Your task to perform on an android device: see tabs open on other devices in the chrome app Image 0: 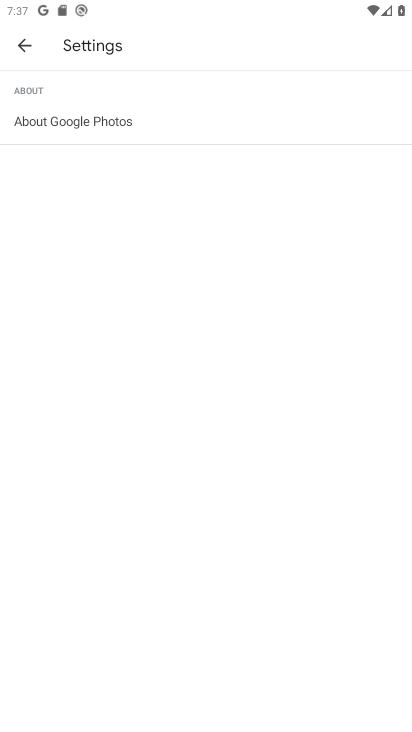
Step 0: press home button
Your task to perform on an android device: see tabs open on other devices in the chrome app Image 1: 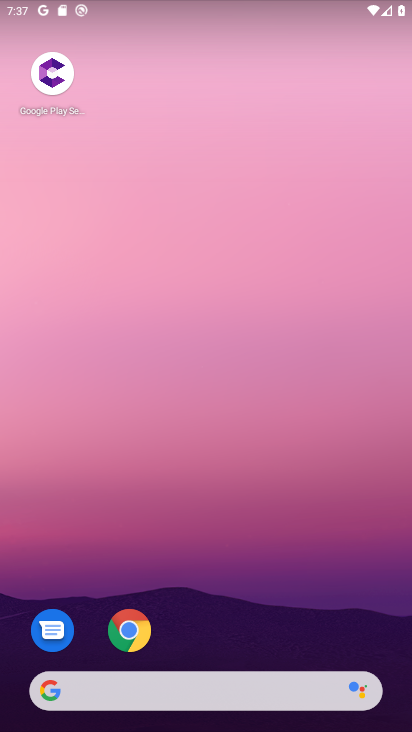
Step 1: drag from (208, 668) to (117, 132)
Your task to perform on an android device: see tabs open on other devices in the chrome app Image 2: 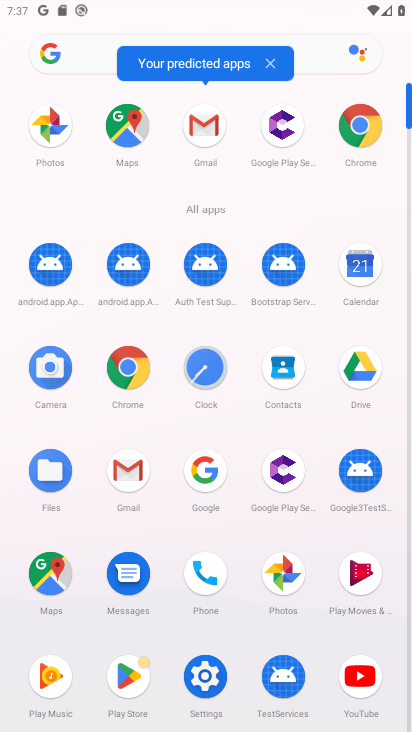
Step 2: click (128, 386)
Your task to perform on an android device: see tabs open on other devices in the chrome app Image 3: 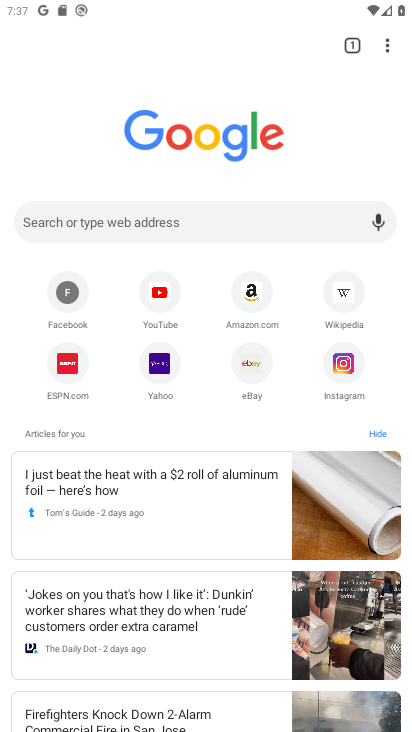
Step 3: click (354, 41)
Your task to perform on an android device: see tabs open on other devices in the chrome app Image 4: 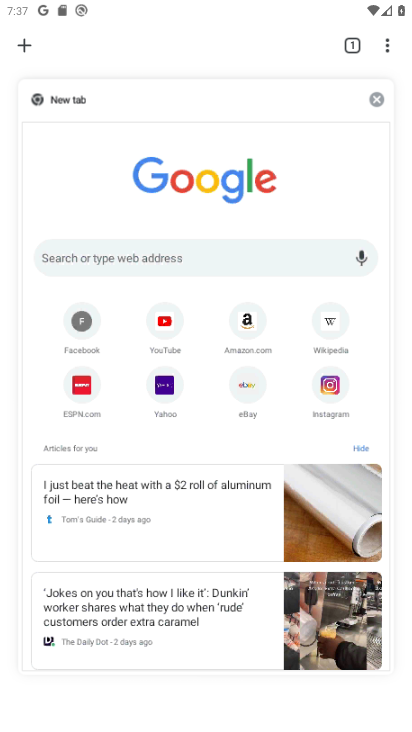
Step 4: task complete